Your task to perform on an android device: What's the weather today? Image 0: 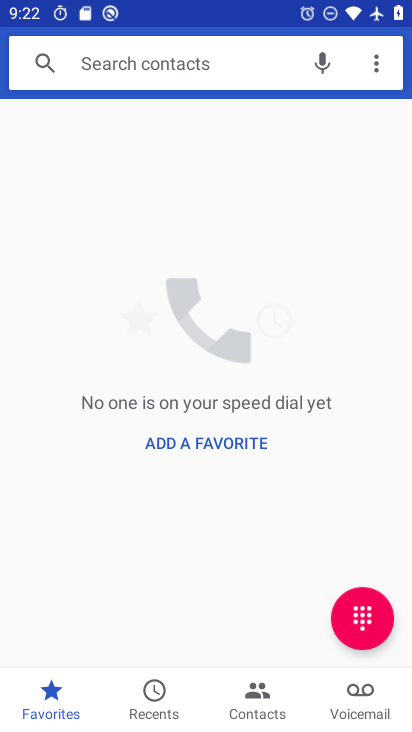
Step 0: press home button
Your task to perform on an android device: What's the weather today? Image 1: 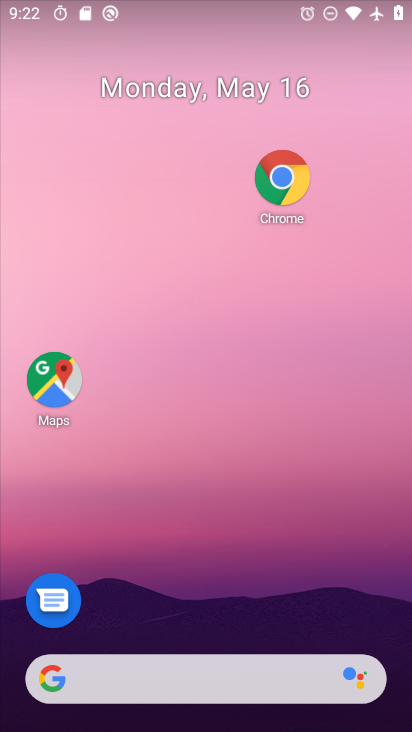
Step 1: click (58, 688)
Your task to perform on an android device: What's the weather today? Image 2: 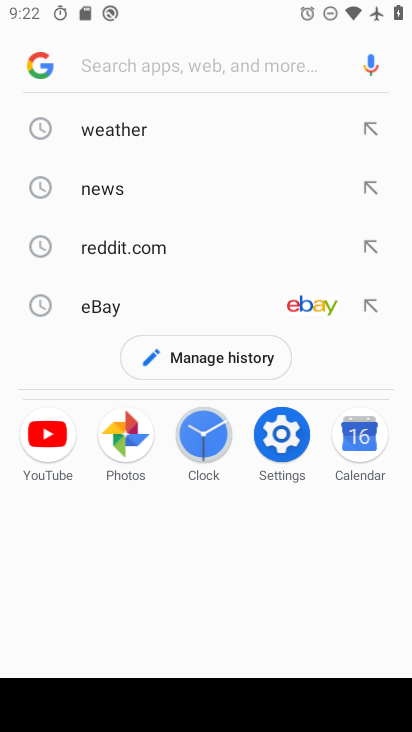
Step 2: click (131, 139)
Your task to perform on an android device: What's the weather today? Image 3: 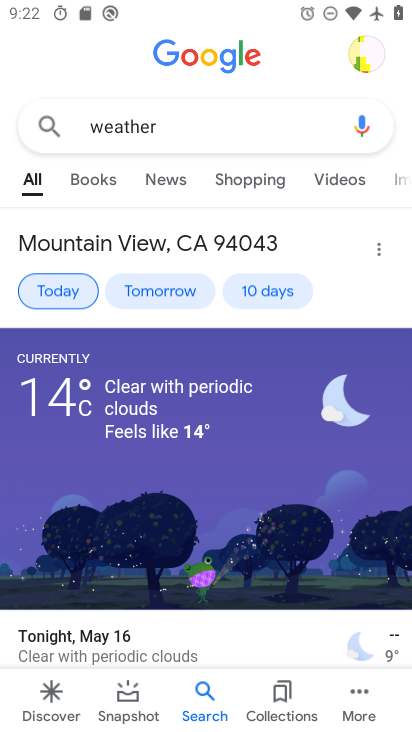
Step 3: task complete